Your task to perform on an android device: toggle pop-ups in chrome Image 0: 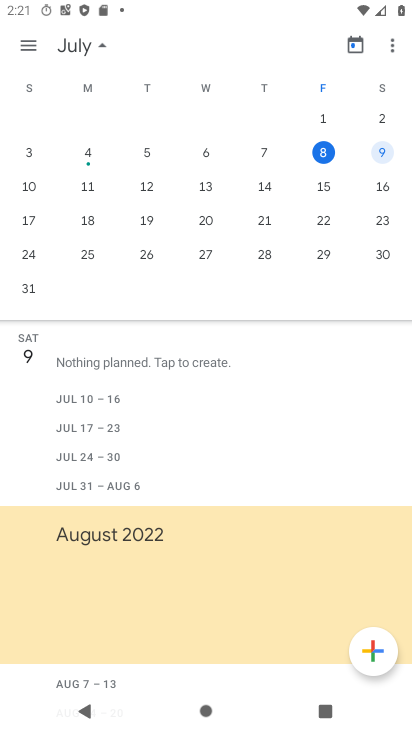
Step 0: press home button
Your task to perform on an android device: toggle pop-ups in chrome Image 1: 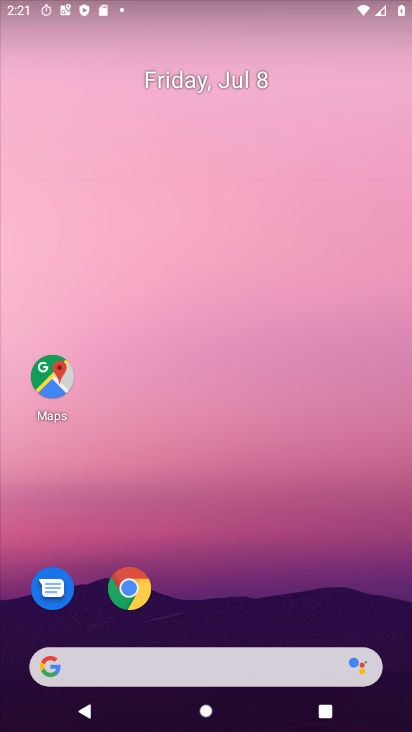
Step 1: drag from (237, 623) to (262, 132)
Your task to perform on an android device: toggle pop-ups in chrome Image 2: 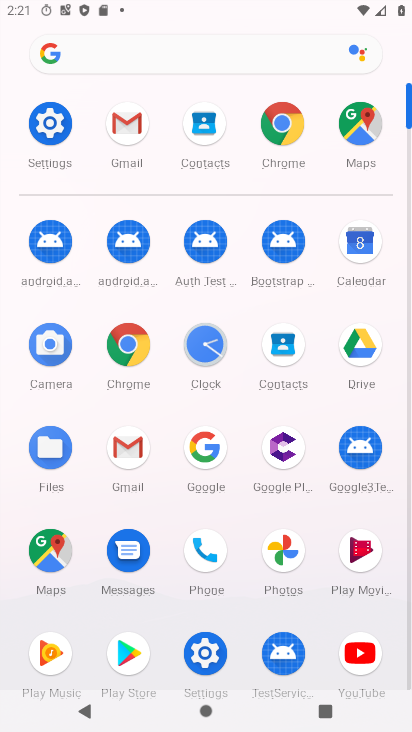
Step 2: click (278, 129)
Your task to perform on an android device: toggle pop-ups in chrome Image 3: 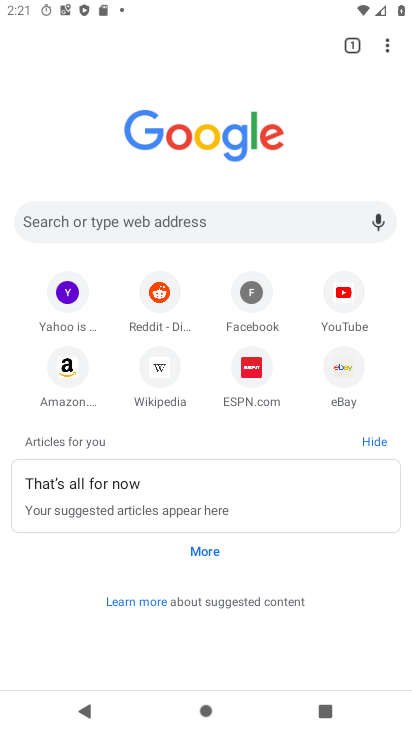
Step 3: drag from (389, 46) to (253, 385)
Your task to perform on an android device: toggle pop-ups in chrome Image 4: 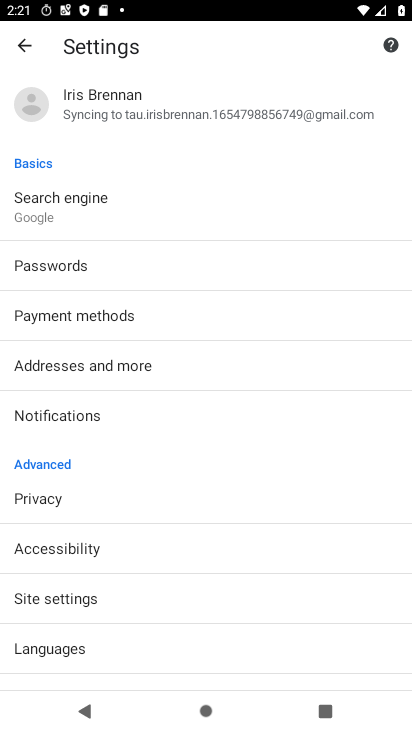
Step 4: click (50, 601)
Your task to perform on an android device: toggle pop-ups in chrome Image 5: 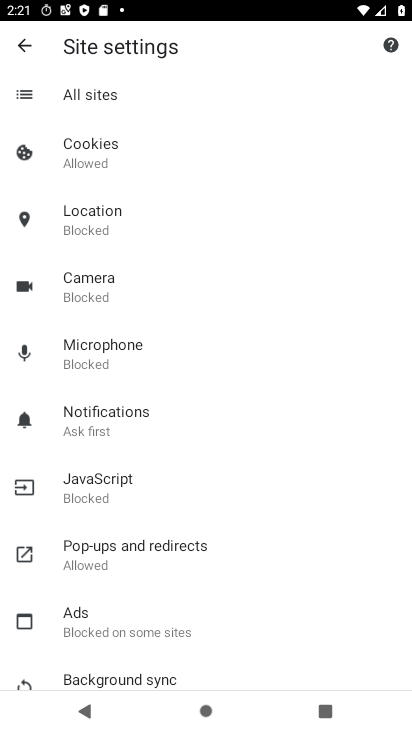
Step 5: click (136, 550)
Your task to perform on an android device: toggle pop-ups in chrome Image 6: 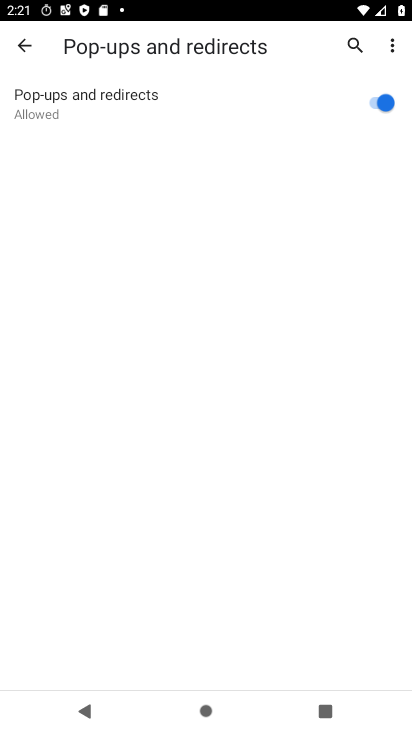
Step 6: click (384, 103)
Your task to perform on an android device: toggle pop-ups in chrome Image 7: 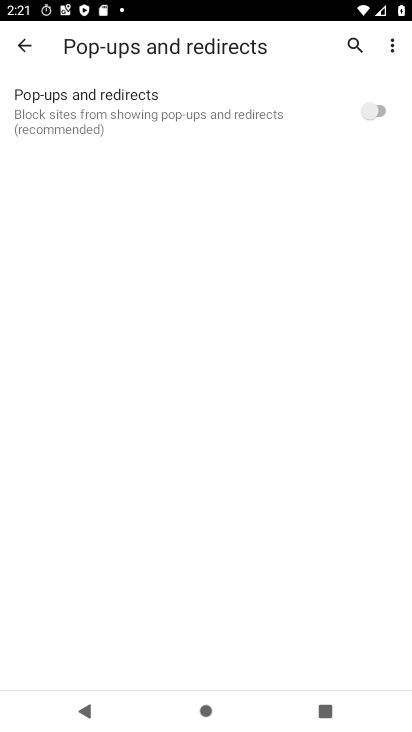
Step 7: task complete